Your task to perform on an android device: Is it going to rain today? Image 0: 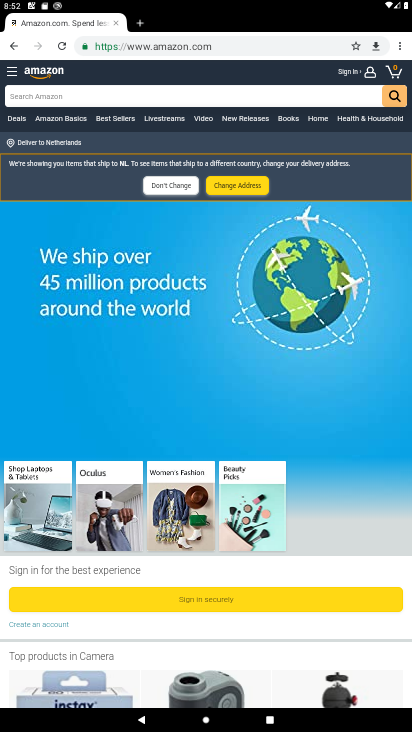
Step 0: press home button
Your task to perform on an android device: Is it going to rain today? Image 1: 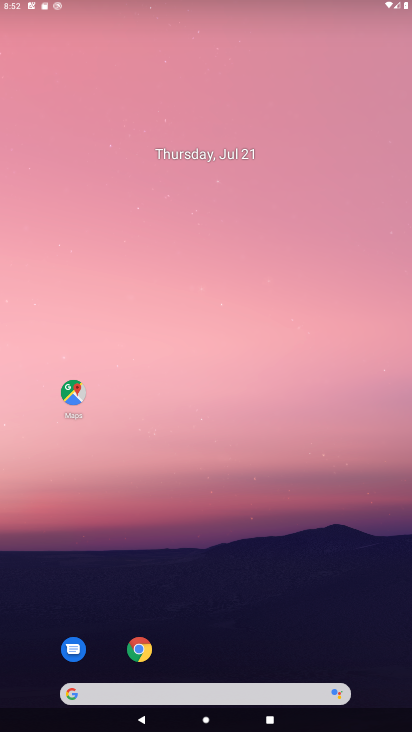
Step 1: drag from (189, 569) to (224, 50)
Your task to perform on an android device: Is it going to rain today? Image 2: 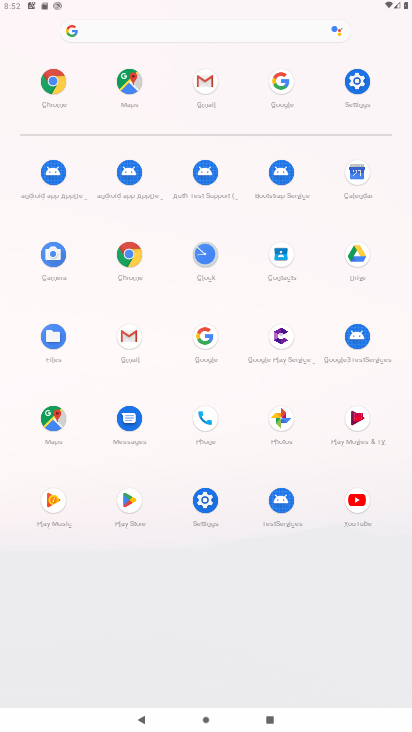
Step 2: click (285, 78)
Your task to perform on an android device: Is it going to rain today? Image 3: 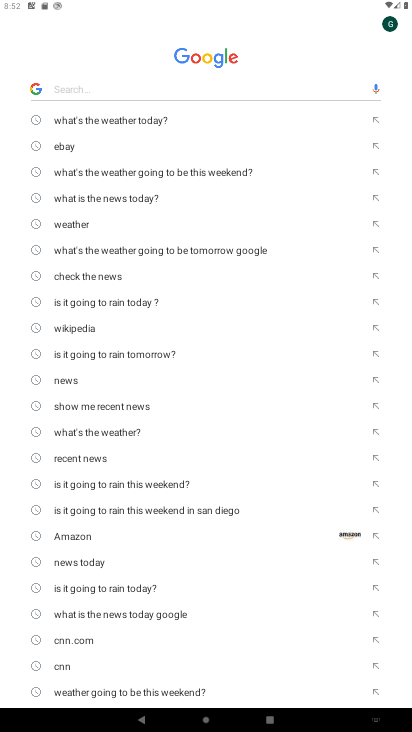
Step 3: click (142, 303)
Your task to perform on an android device: Is it going to rain today? Image 4: 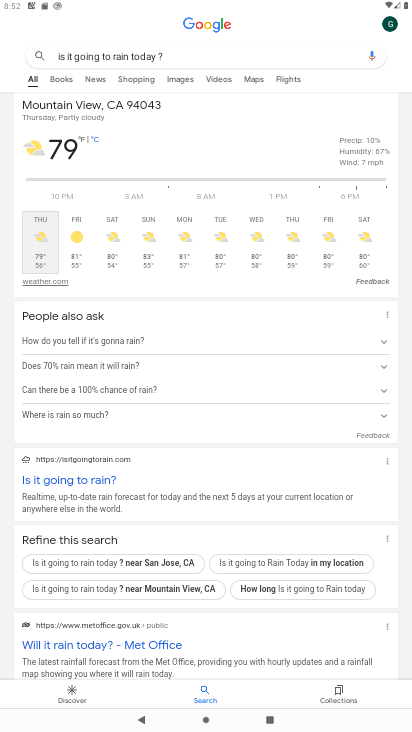
Step 4: task complete